Your task to perform on an android device: Go to calendar. Show me events next week Image 0: 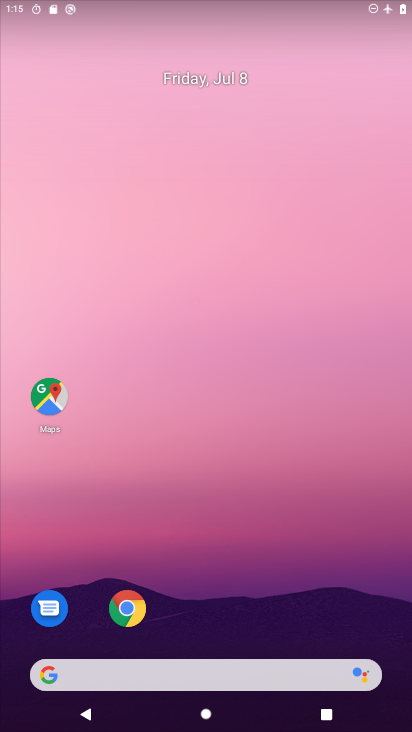
Step 0: drag from (237, 727) to (220, 118)
Your task to perform on an android device: Go to calendar. Show me events next week Image 1: 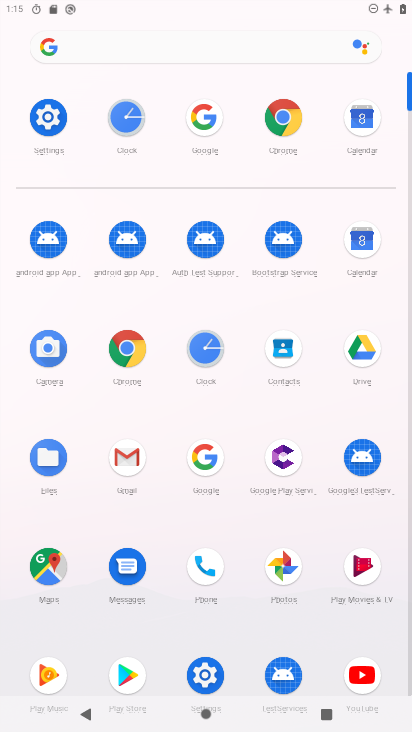
Step 1: click (358, 117)
Your task to perform on an android device: Go to calendar. Show me events next week Image 2: 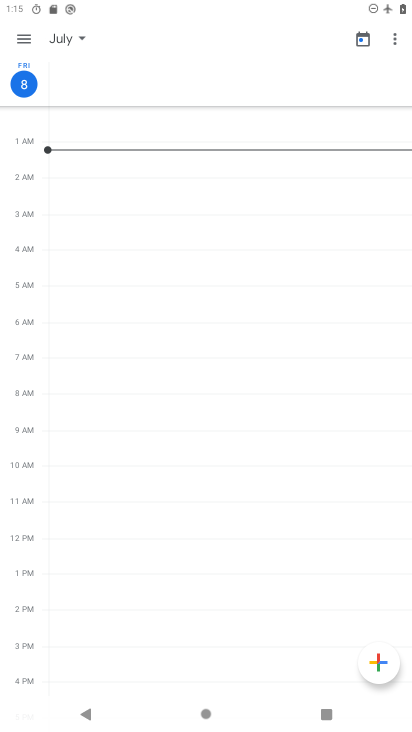
Step 2: click (76, 35)
Your task to perform on an android device: Go to calendar. Show me events next week Image 3: 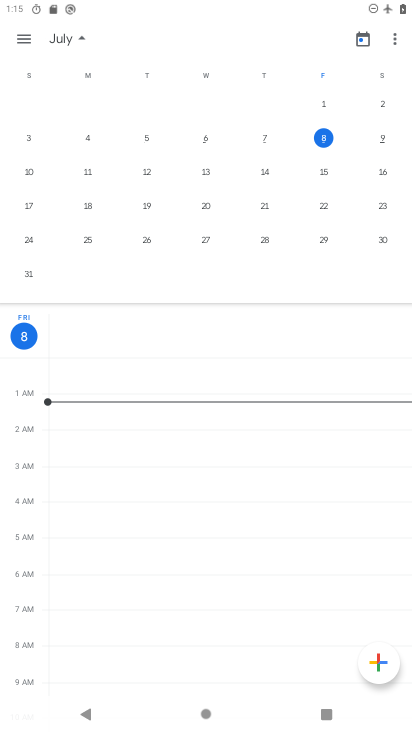
Step 3: click (88, 203)
Your task to perform on an android device: Go to calendar. Show me events next week Image 4: 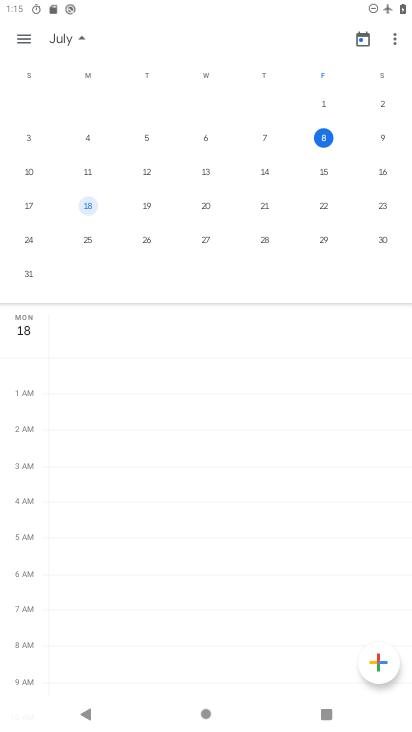
Step 4: click (89, 201)
Your task to perform on an android device: Go to calendar. Show me events next week Image 5: 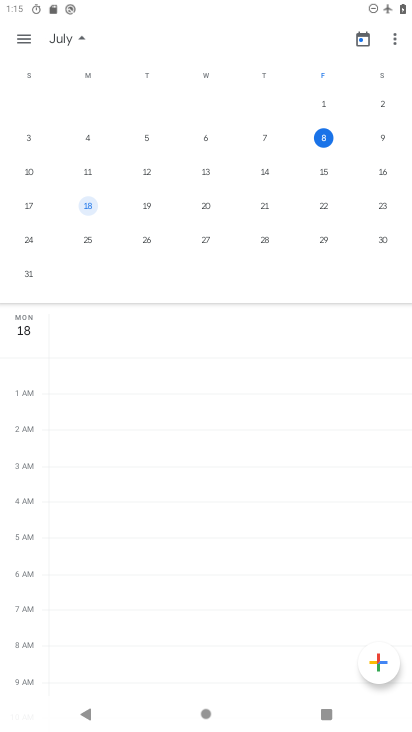
Step 5: click (24, 37)
Your task to perform on an android device: Go to calendar. Show me events next week Image 6: 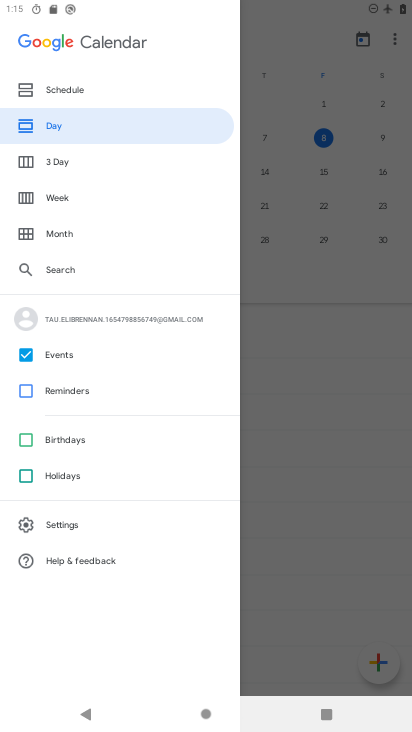
Step 6: click (54, 194)
Your task to perform on an android device: Go to calendar. Show me events next week Image 7: 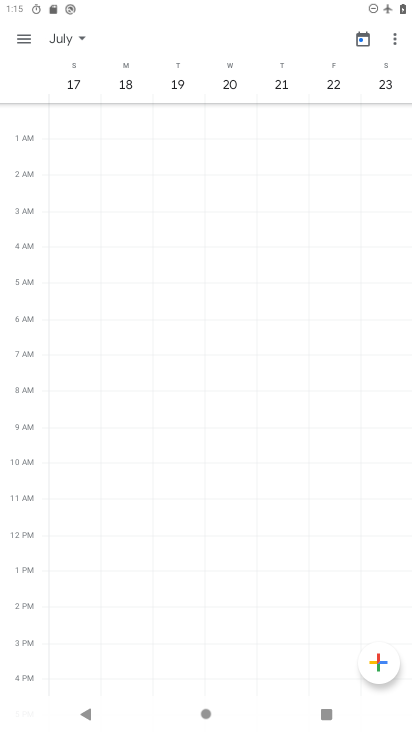
Step 7: task complete